Your task to perform on an android device: turn off sleep mode Image 0: 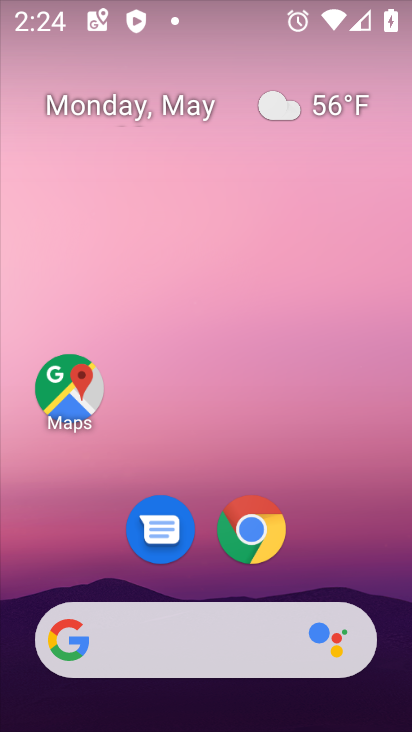
Step 0: drag from (358, 552) to (336, 52)
Your task to perform on an android device: turn off sleep mode Image 1: 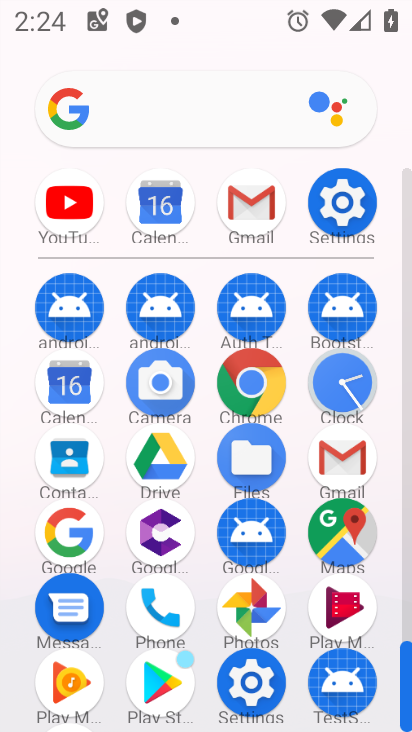
Step 1: click (340, 201)
Your task to perform on an android device: turn off sleep mode Image 2: 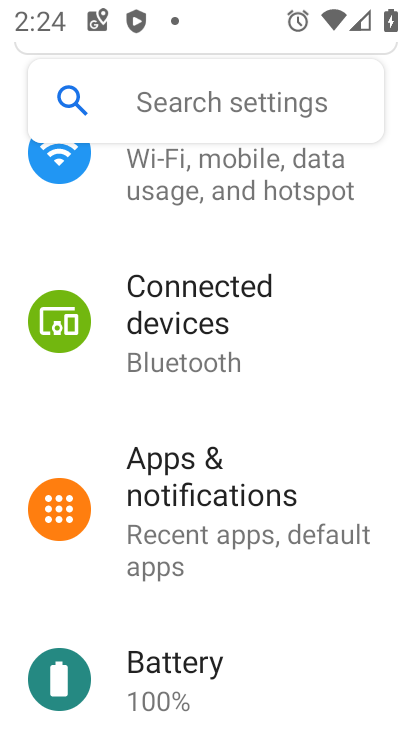
Step 2: drag from (225, 518) to (230, 293)
Your task to perform on an android device: turn off sleep mode Image 3: 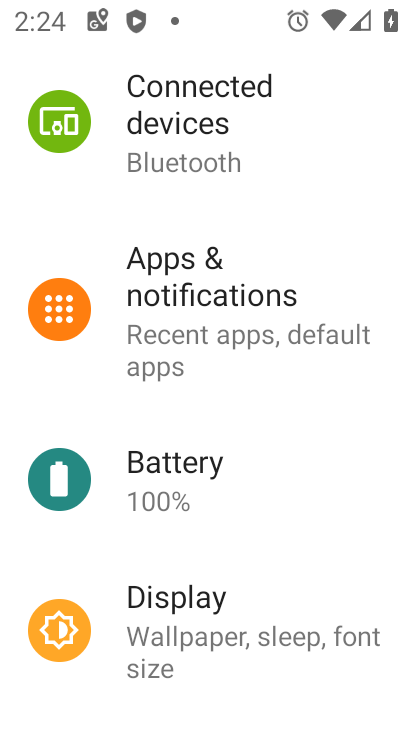
Step 3: drag from (257, 501) to (248, 339)
Your task to perform on an android device: turn off sleep mode Image 4: 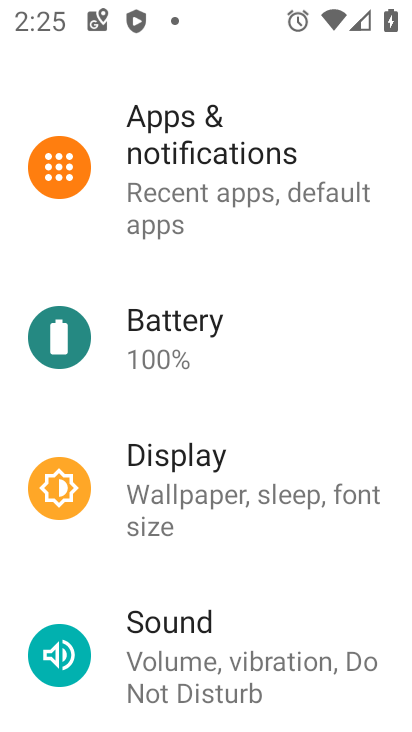
Step 4: click (238, 486)
Your task to perform on an android device: turn off sleep mode Image 5: 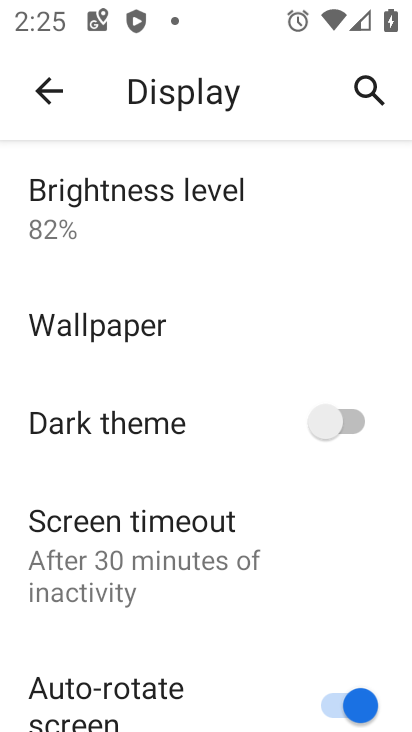
Step 5: drag from (214, 593) to (187, 314)
Your task to perform on an android device: turn off sleep mode Image 6: 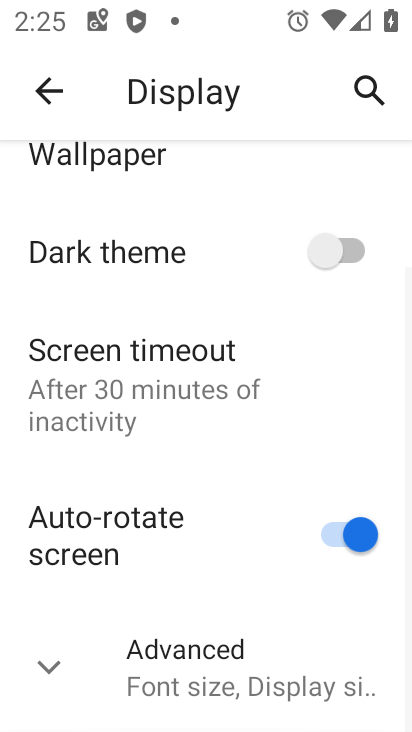
Step 6: click (284, 666)
Your task to perform on an android device: turn off sleep mode Image 7: 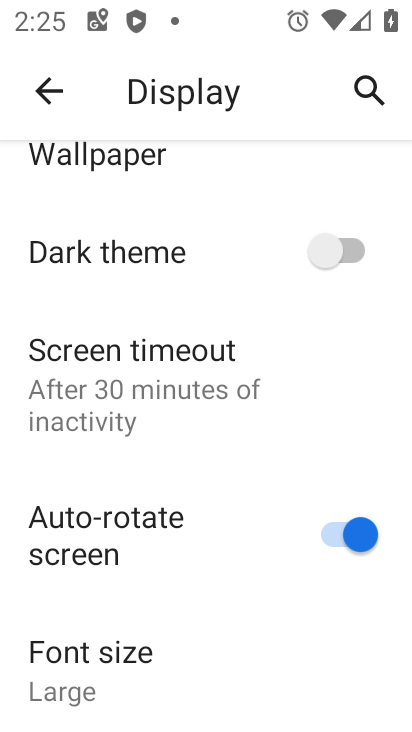
Step 7: drag from (212, 625) to (207, 298)
Your task to perform on an android device: turn off sleep mode Image 8: 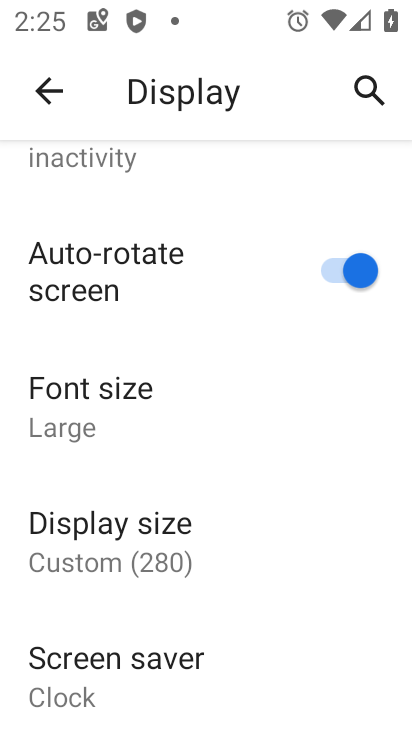
Step 8: drag from (192, 645) to (206, 291)
Your task to perform on an android device: turn off sleep mode Image 9: 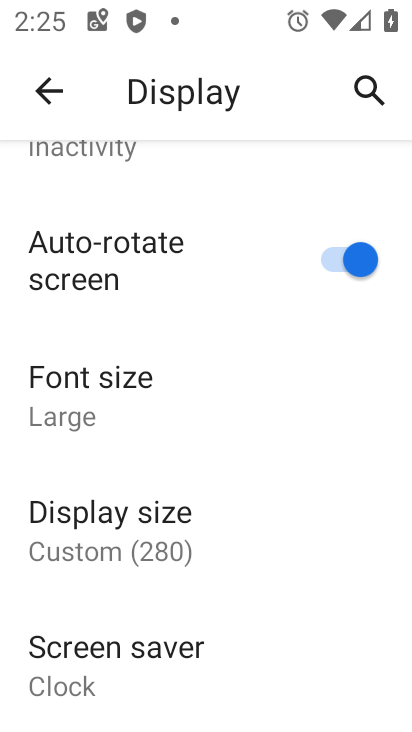
Step 9: drag from (203, 637) to (119, 355)
Your task to perform on an android device: turn off sleep mode Image 10: 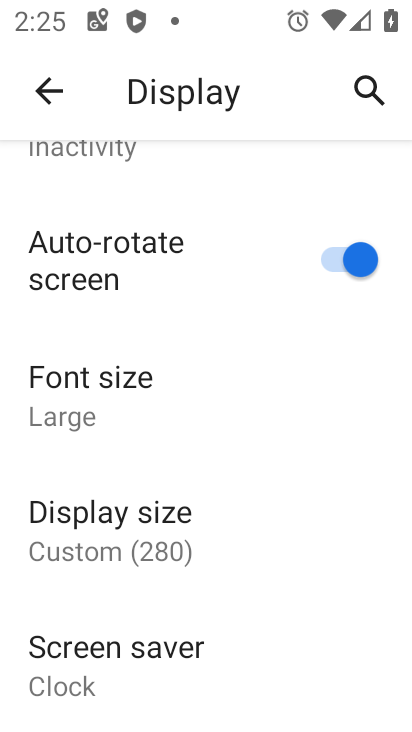
Step 10: click (52, 94)
Your task to perform on an android device: turn off sleep mode Image 11: 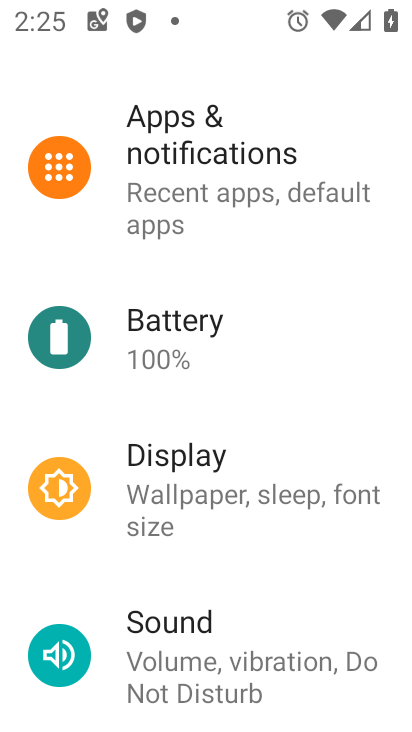
Step 11: task complete